Your task to perform on an android device: delete location history Image 0: 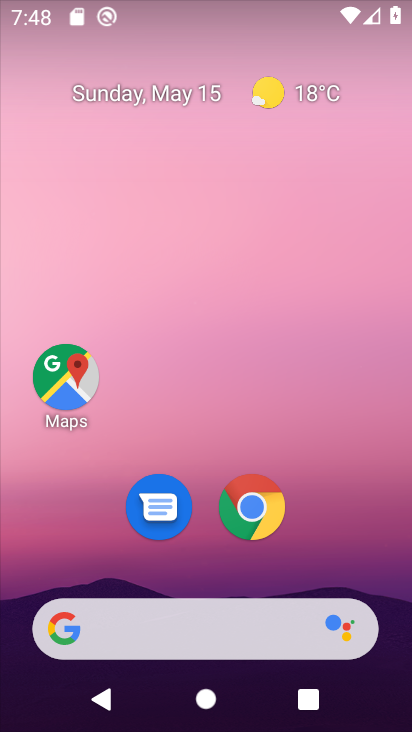
Step 0: click (70, 376)
Your task to perform on an android device: delete location history Image 1: 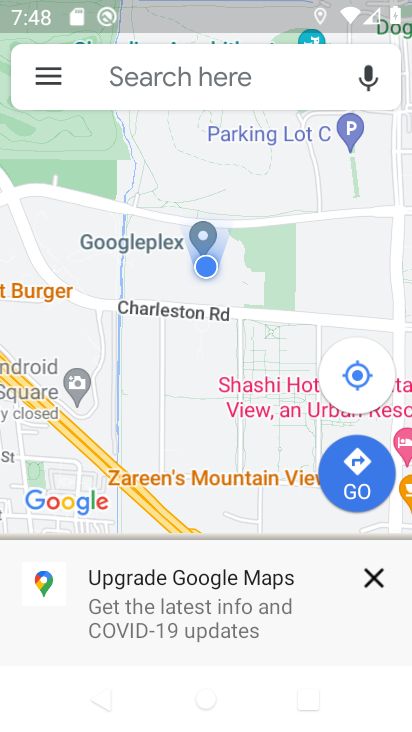
Step 1: click (44, 72)
Your task to perform on an android device: delete location history Image 2: 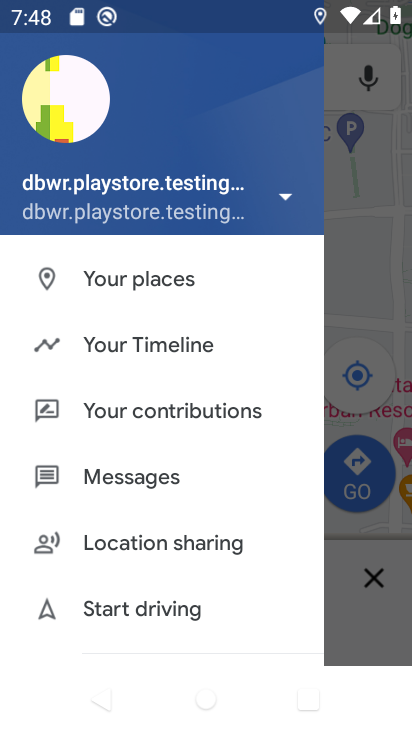
Step 2: drag from (248, 626) to (278, 189)
Your task to perform on an android device: delete location history Image 3: 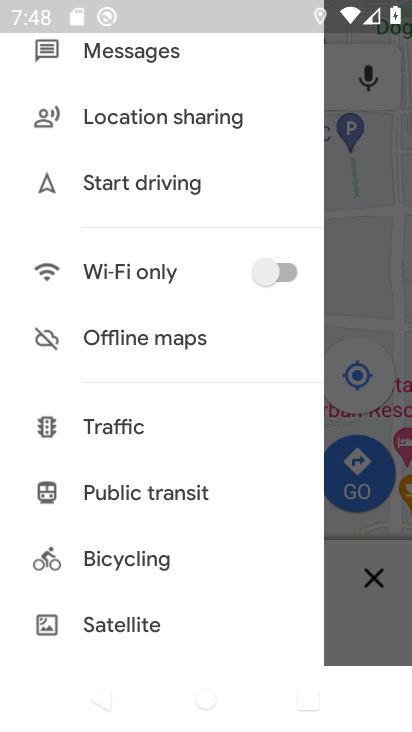
Step 3: drag from (221, 619) to (224, 165)
Your task to perform on an android device: delete location history Image 4: 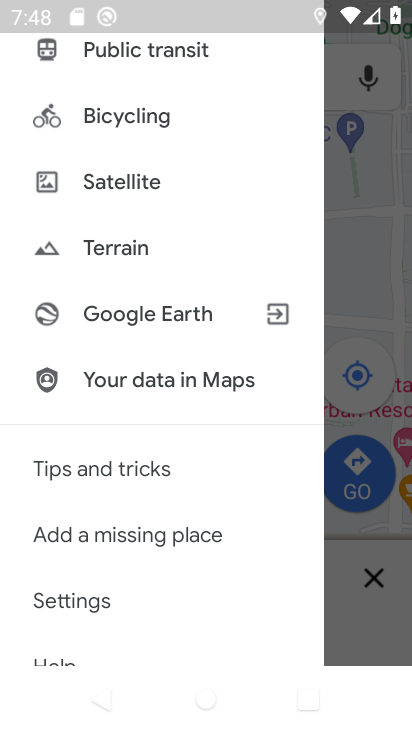
Step 4: click (53, 594)
Your task to perform on an android device: delete location history Image 5: 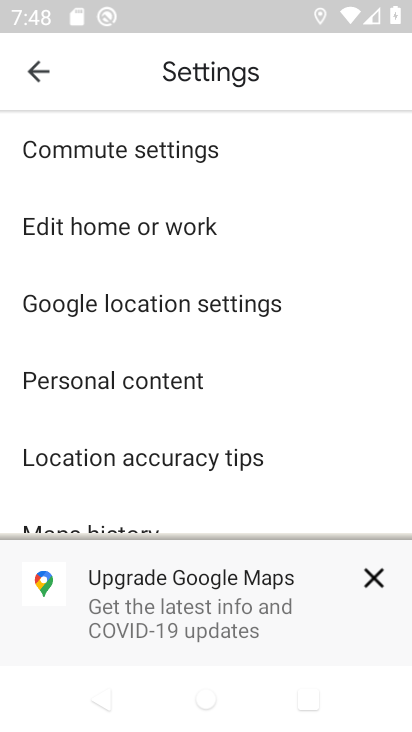
Step 5: click (112, 388)
Your task to perform on an android device: delete location history Image 6: 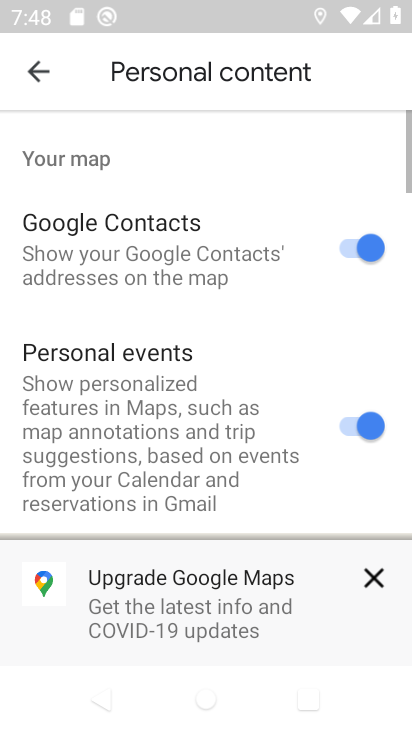
Step 6: drag from (312, 506) to (305, 38)
Your task to perform on an android device: delete location history Image 7: 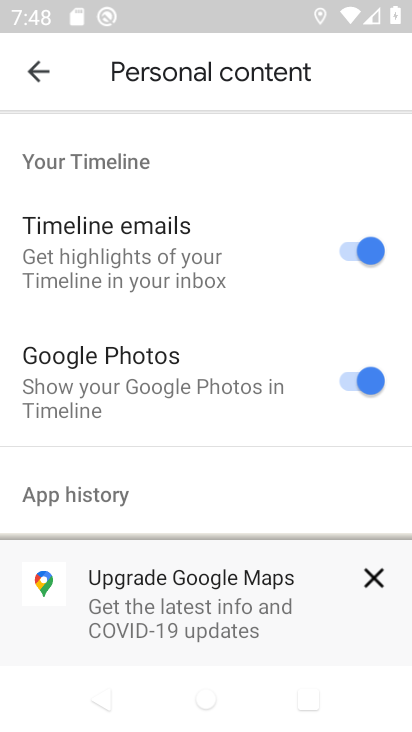
Step 7: drag from (271, 483) to (303, 2)
Your task to perform on an android device: delete location history Image 8: 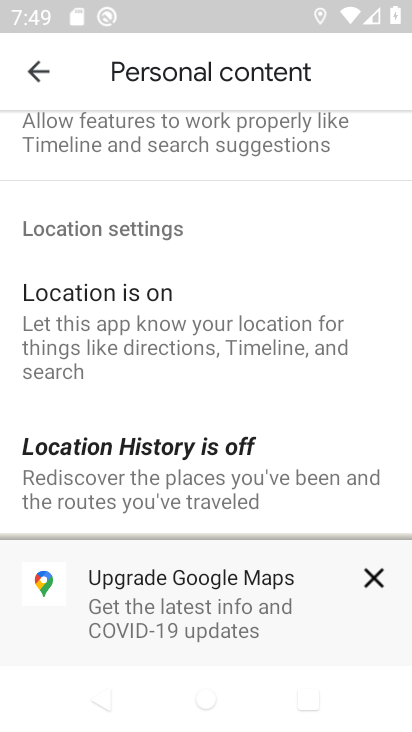
Step 8: drag from (291, 492) to (306, 76)
Your task to perform on an android device: delete location history Image 9: 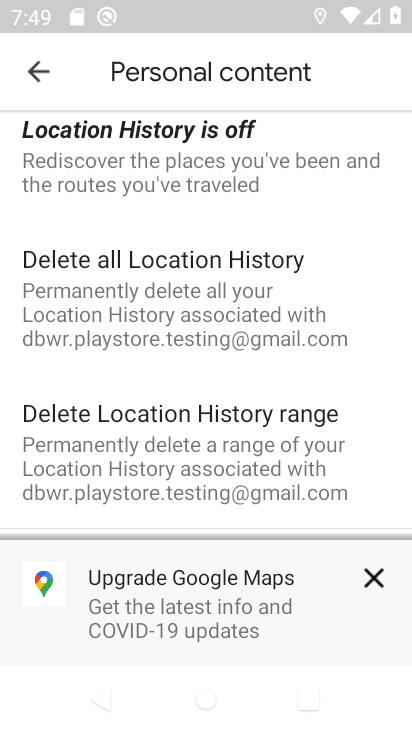
Step 9: click (98, 309)
Your task to perform on an android device: delete location history Image 10: 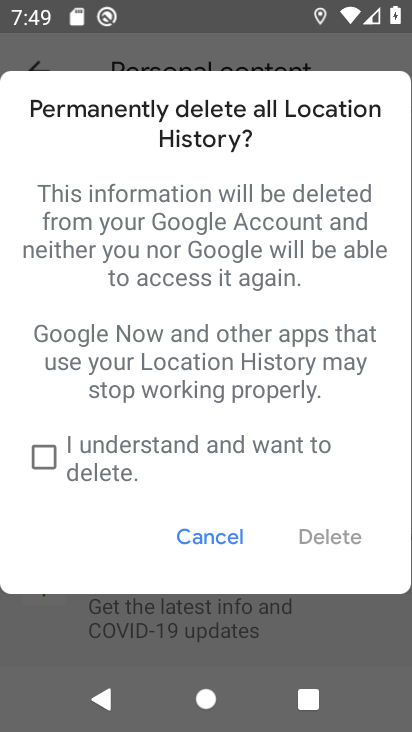
Step 10: click (43, 454)
Your task to perform on an android device: delete location history Image 11: 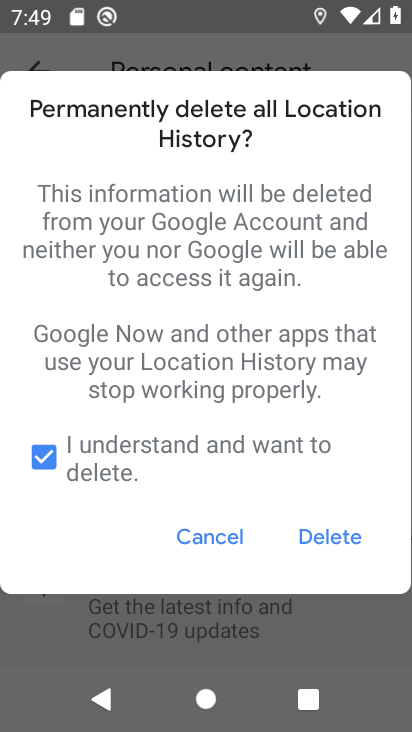
Step 11: click (327, 543)
Your task to perform on an android device: delete location history Image 12: 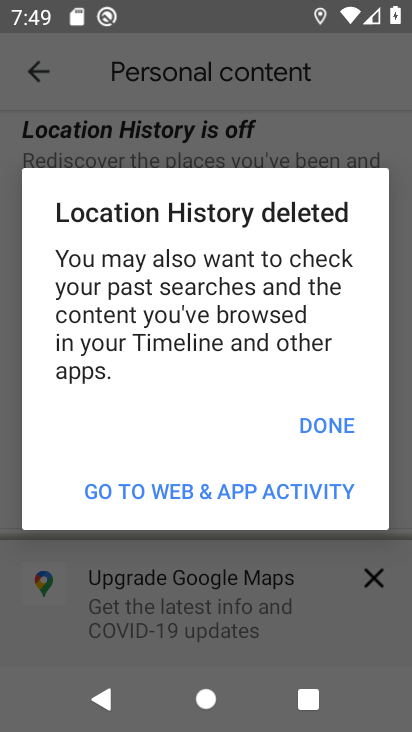
Step 12: click (323, 425)
Your task to perform on an android device: delete location history Image 13: 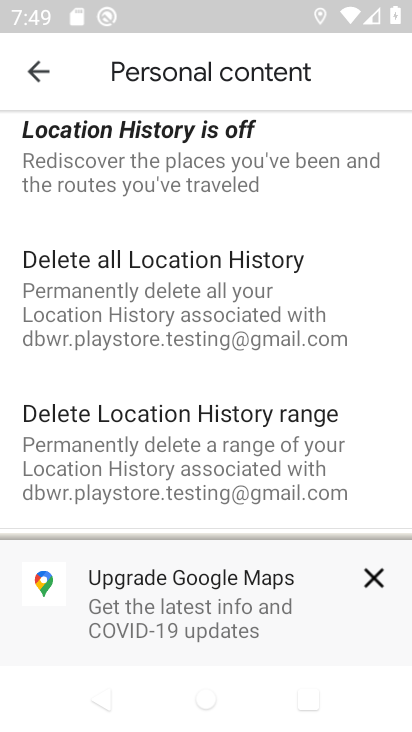
Step 13: task complete